Your task to perform on an android device: refresh tabs in the chrome app Image 0: 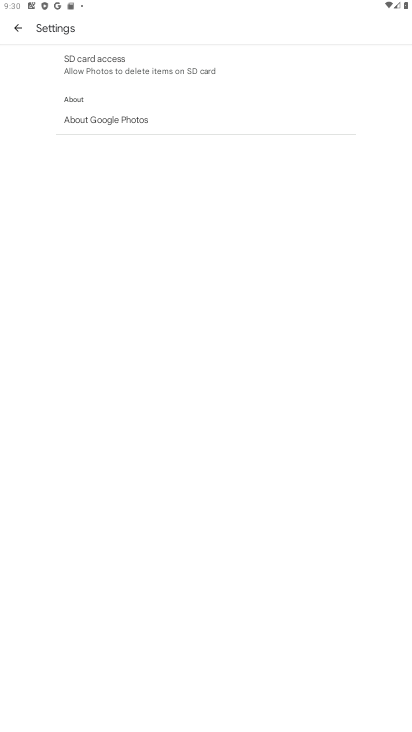
Step 0: task complete